Your task to perform on an android device: Show me productivity apps on the Play Store Image 0: 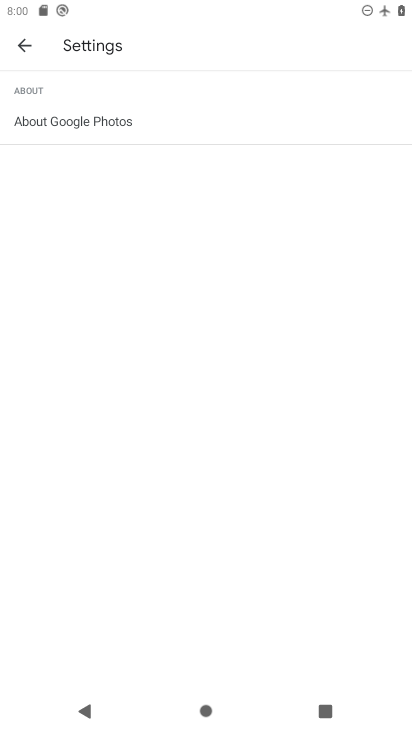
Step 0: press home button
Your task to perform on an android device: Show me productivity apps on the Play Store Image 1: 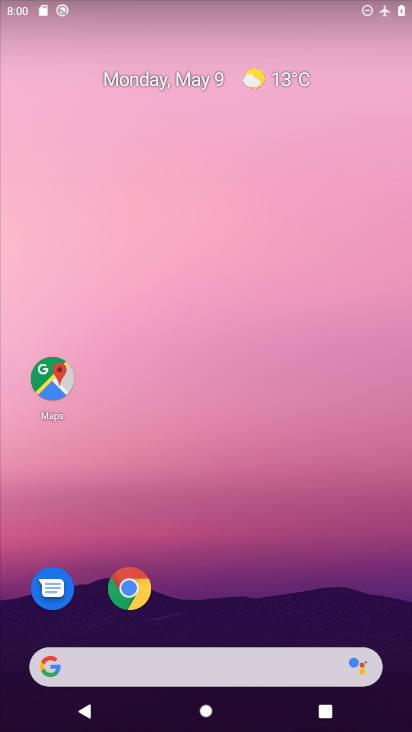
Step 1: drag from (261, 594) to (223, 56)
Your task to perform on an android device: Show me productivity apps on the Play Store Image 2: 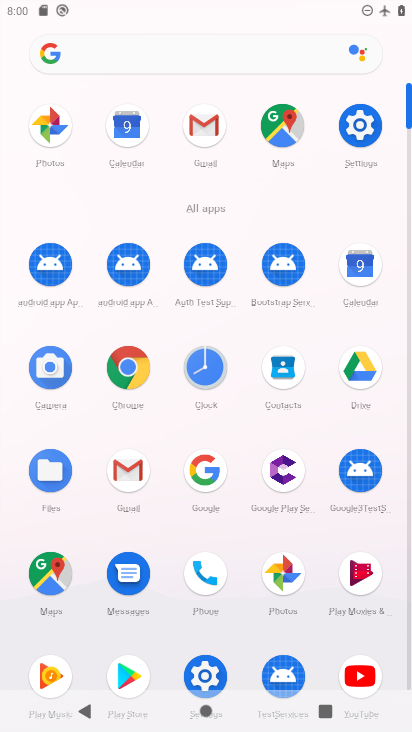
Step 2: click (114, 666)
Your task to perform on an android device: Show me productivity apps on the Play Store Image 3: 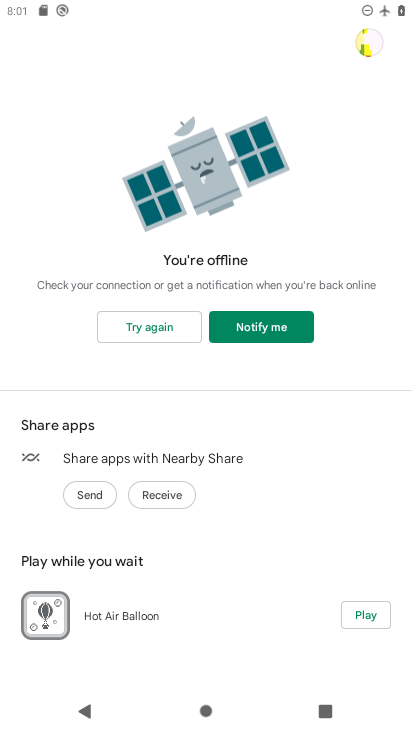
Step 3: click (167, 328)
Your task to perform on an android device: Show me productivity apps on the Play Store Image 4: 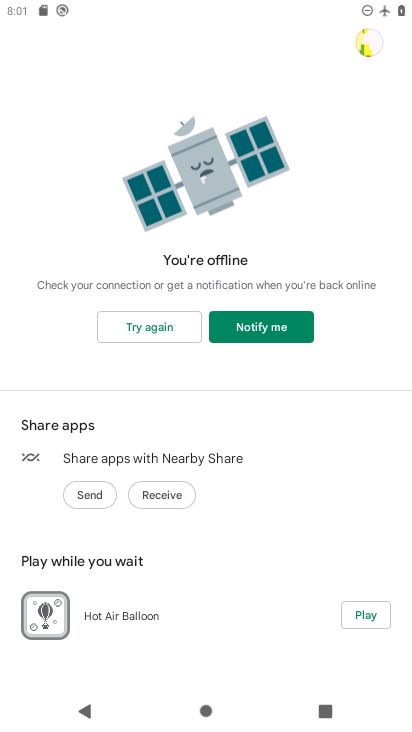
Step 4: task complete